Your task to perform on an android device: Search for the new nike air max 270 on Nike.com Image 0: 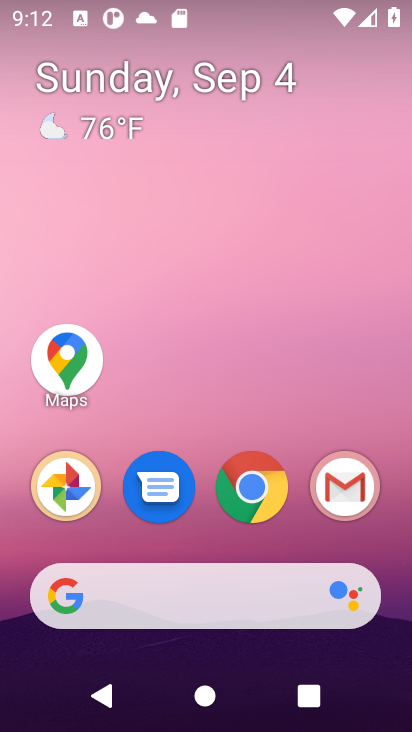
Step 0: click (268, 594)
Your task to perform on an android device: Search for the new nike air max 270 on Nike.com Image 1: 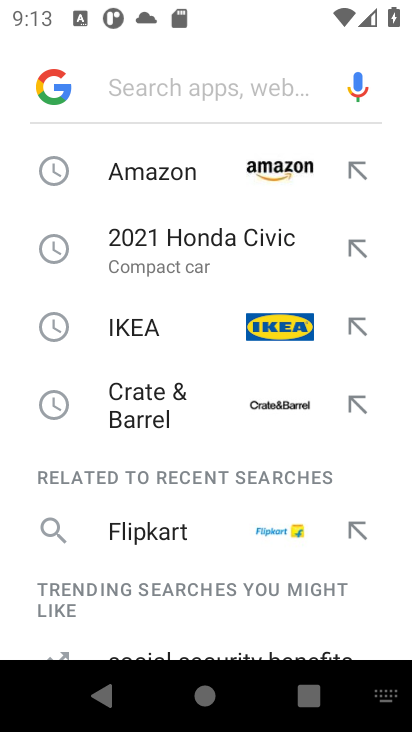
Step 1: type "Nike.com"
Your task to perform on an android device: Search for the new nike air max 270 on Nike.com Image 2: 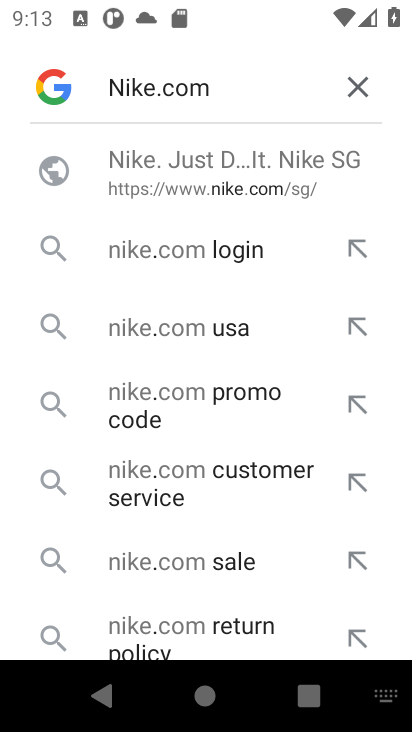
Step 2: click (172, 188)
Your task to perform on an android device: Search for the new nike air max 270 on Nike.com Image 3: 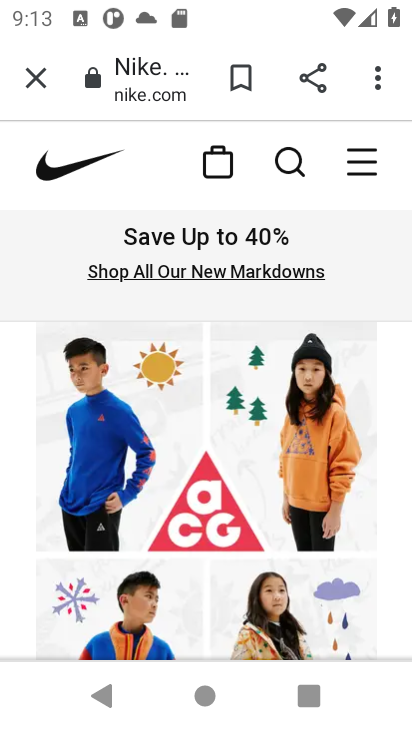
Step 3: click (296, 160)
Your task to perform on an android device: Search for the new nike air max 270 on Nike.com Image 4: 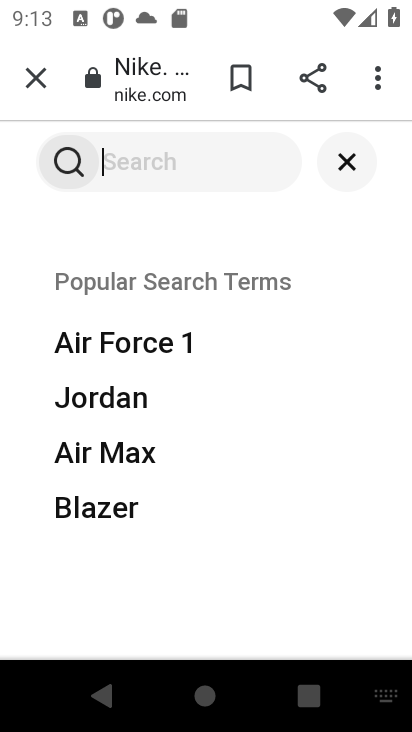
Step 4: click (211, 171)
Your task to perform on an android device: Search for the new nike air max 270 on Nike.com Image 5: 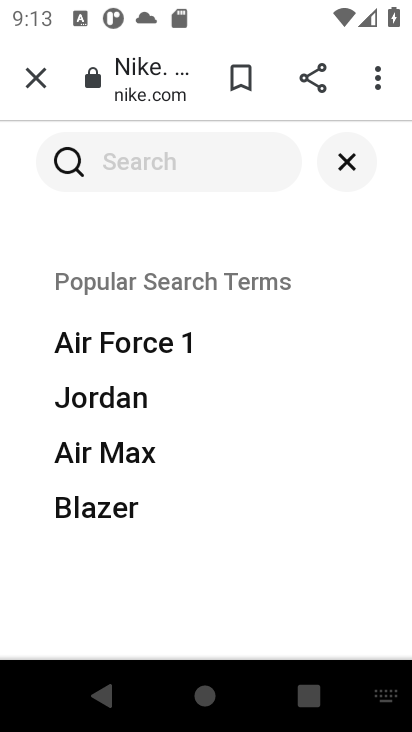
Step 5: type " nike air max 270"
Your task to perform on an android device: Search for the new nike air max 270 on Nike.com Image 6: 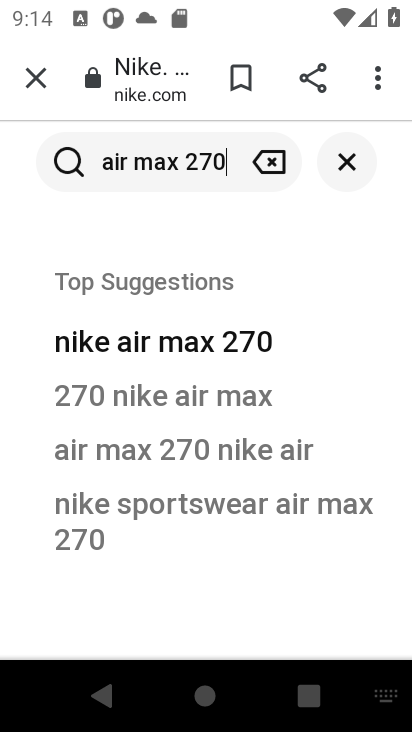
Step 6: click (202, 346)
Your task to perform on an android device: Search for the new nike air max 270 on Nike.com Image 7: 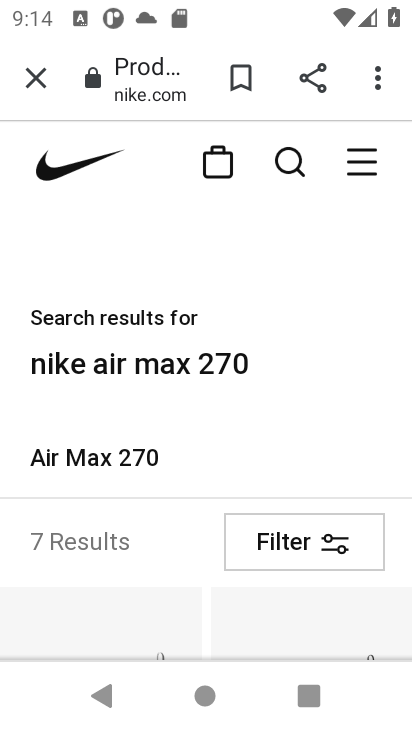
Step 7: task complete